Your task to perform on an android device: turn on airplane mode Image 0: 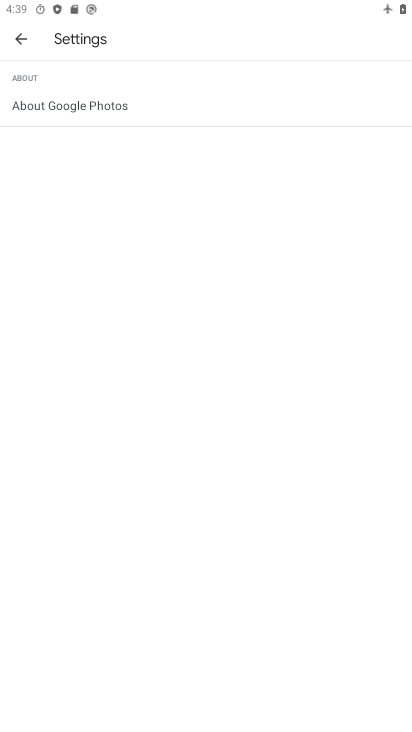
Step 0: press home button
Your task to perform on an android device: turn on airplane mode Image 1: 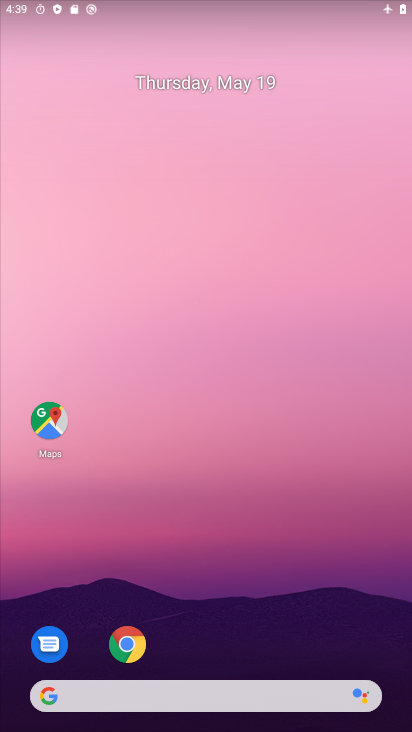
Step 1: drag from (242, 677) to (280, 226)
Your task to perform on an android device: turn on airplane mode Image 2: 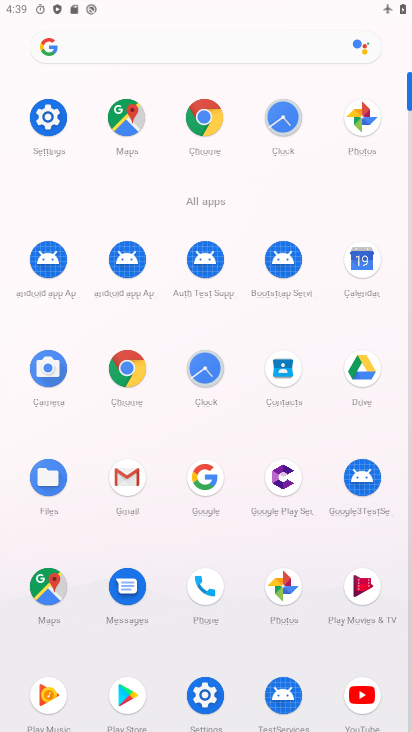
Step 2: click (46, 108)
Your task to perform on an android device: turn on airplane mode Image 3: 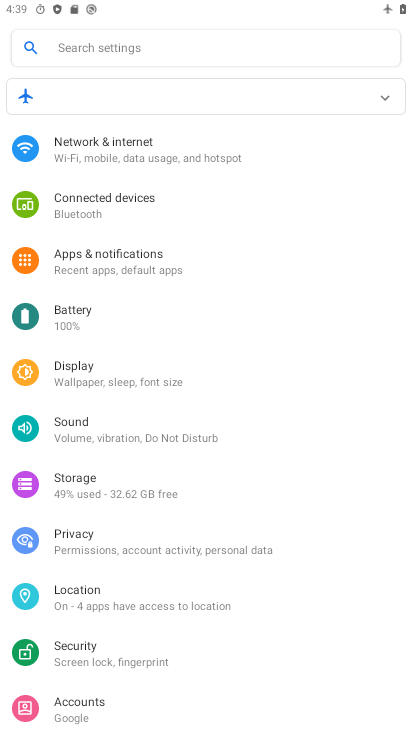
Step 3: click (110, 154)
Your task to perform on an android device: turn on airplane mode Image 4: 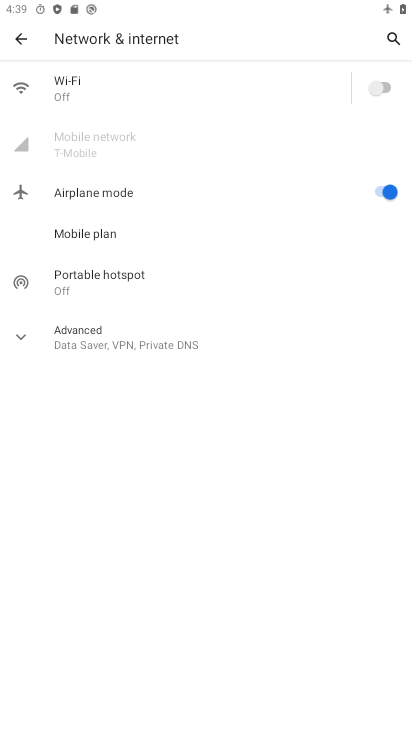
Step 4: task complete